Your task to perform on an android device: What's the weather going to be this weekend? Image 0: 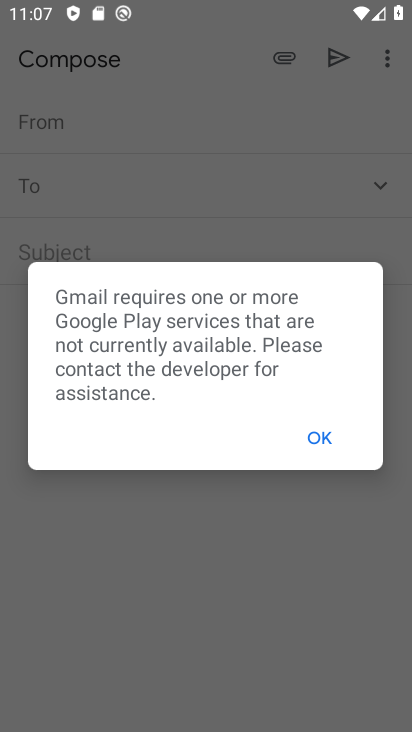
Step 0: click (144, 596)
Your task to perform on an android device: What's the weather going to be this weekend? Image 1: 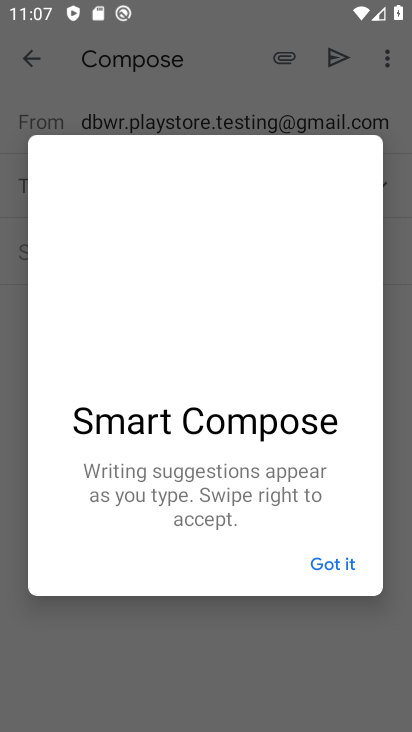
Step 1: press home button
Your task to perform on an android device: What's the weather going to be this weekend? Image 2: 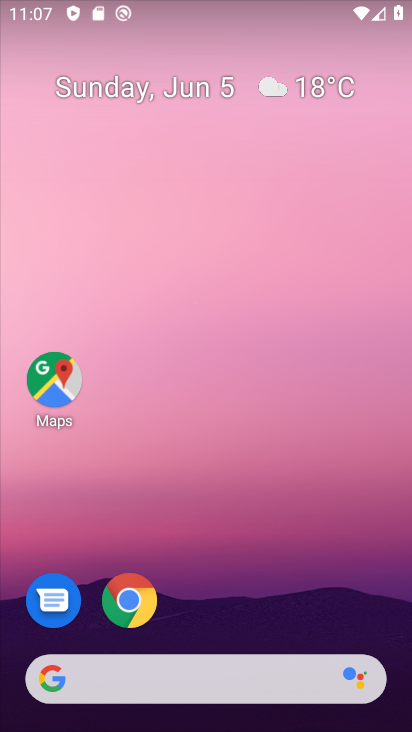
Step 2: click (174, 687)
Your task to perform on an android device: What's the weather going to be this weekend? Image 3: 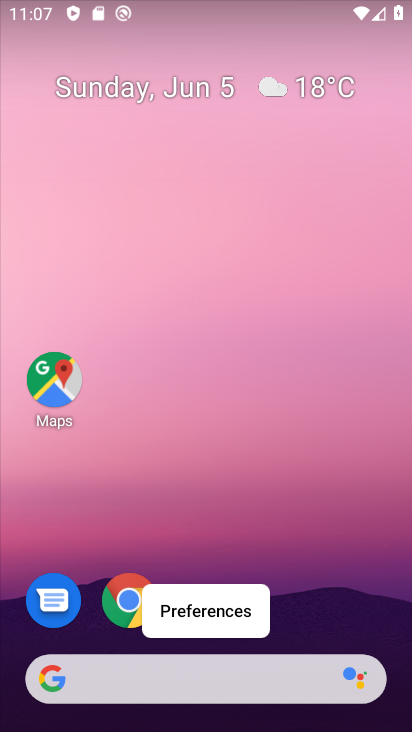
Step 3: click (313, 93)
Your task to perform on an android device: What's the weather going to be this weekend? Image 4: 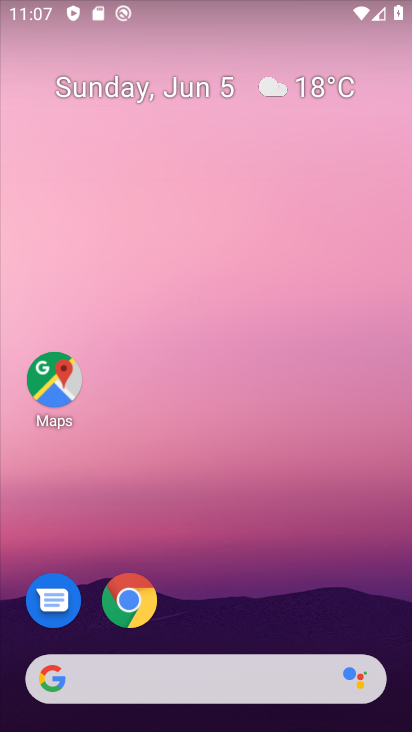
Step 4: click (300, 95)
Your task to perform on an android device: What's the weather going to be this weekend? Image 5: 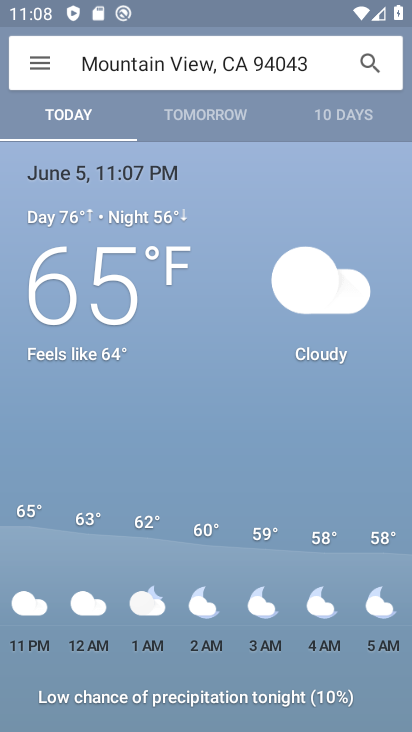
Step 5: click (329, 129)
Your task to perform on an android device: What's the weather going to be this weekend? Image 6: 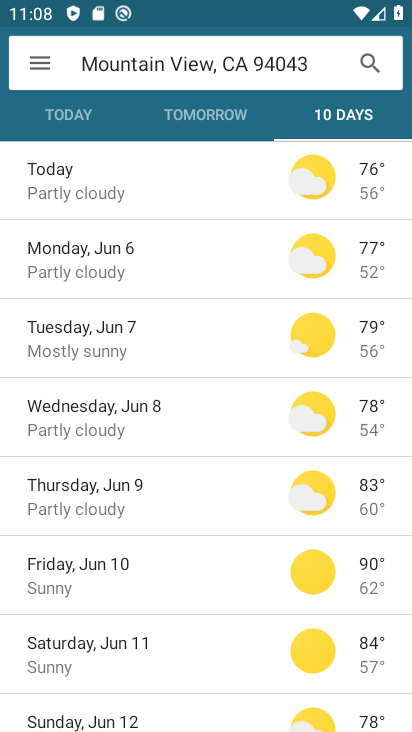
Step 6: task complete